Your task to perform on an android device: check out phone information Image 0: 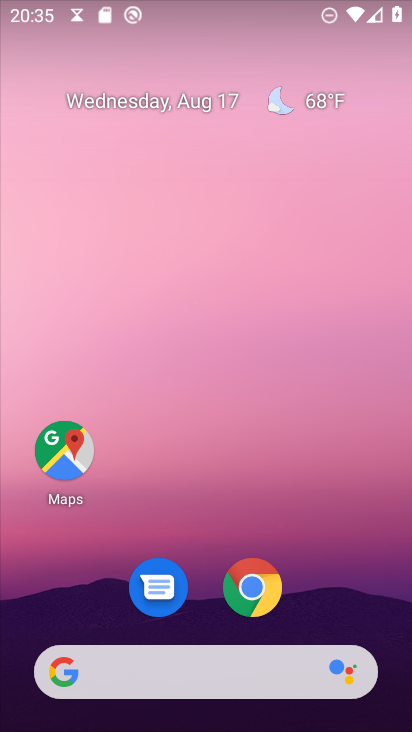
Step 0: drag from (18, 706) to (186, 302)
Your task to perform on an android device: check out phone information Image 1: 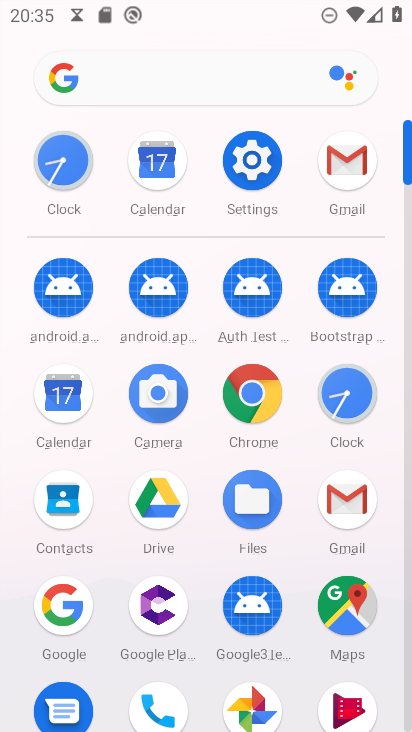
Step 1: click (145, 711)
Your task to perform on an android device: check out phone information Image 2: 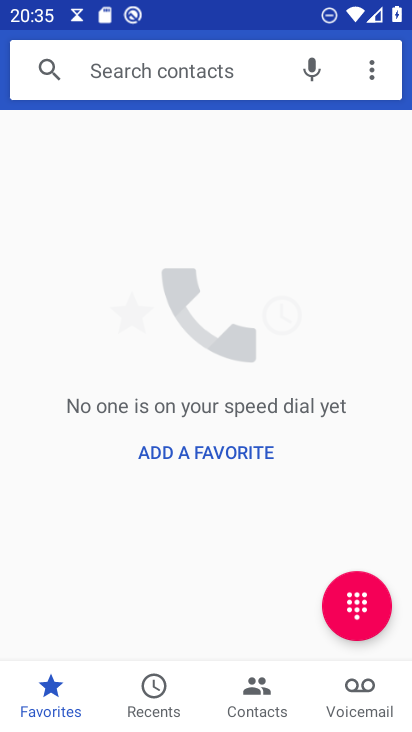
Step 2: click (257, 698)
Your task to perform on an android device: check out phone information Image 3: 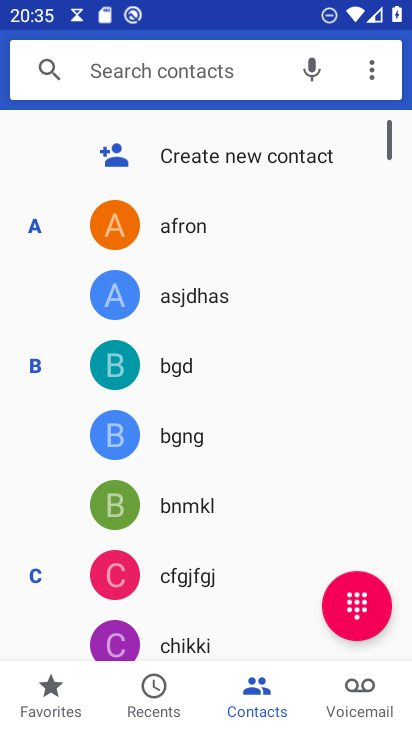
Step 3: task complete